Your task to perform on an android device: Do I have any events tomorrow? Image 0: 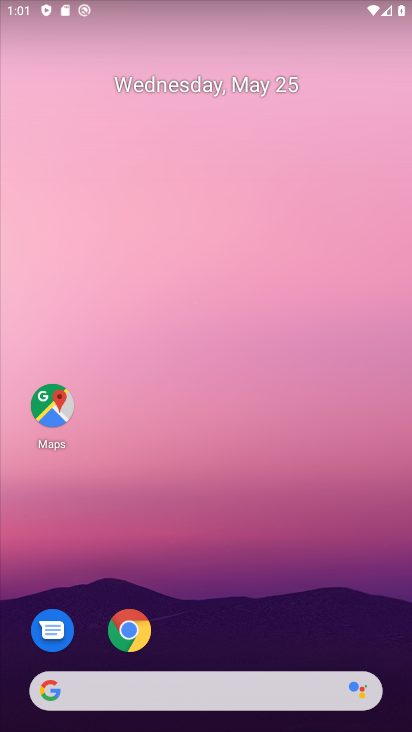
Step 0: drag from (268, 572) to (227, 4)
Your task to perform on an android device: Do I have any events tomorrow? Image 1: 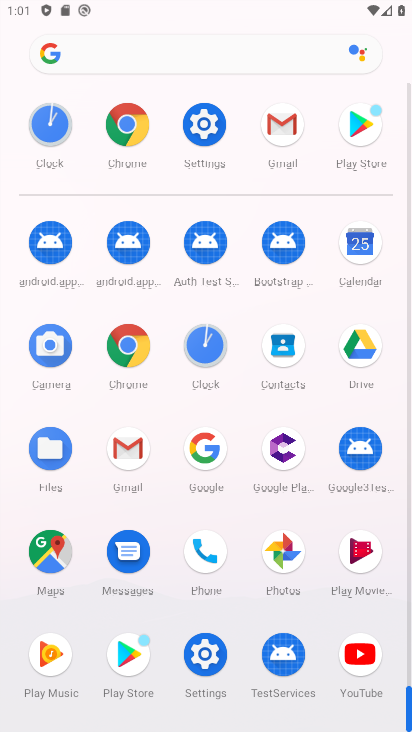
Step 1: click (358, 250)
Your task to perform on an android device: Do I have any events tomorrow? Image 2: 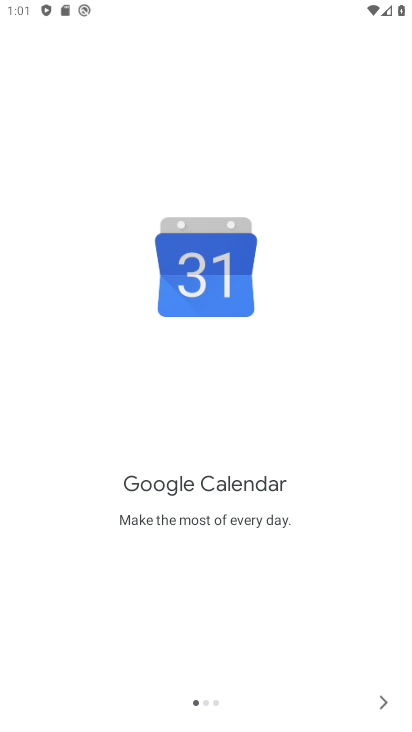
Step 2: click (375, 705)
Your task to perform on an android device: Do I have any events tomorrow? Image 3: 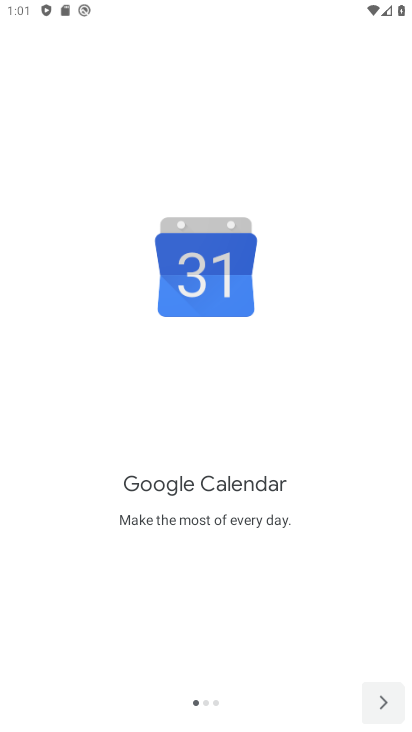
Step 3: click (378, 704)
Your task to perform on an android device: Do I have any events tomorrow? Image 4: 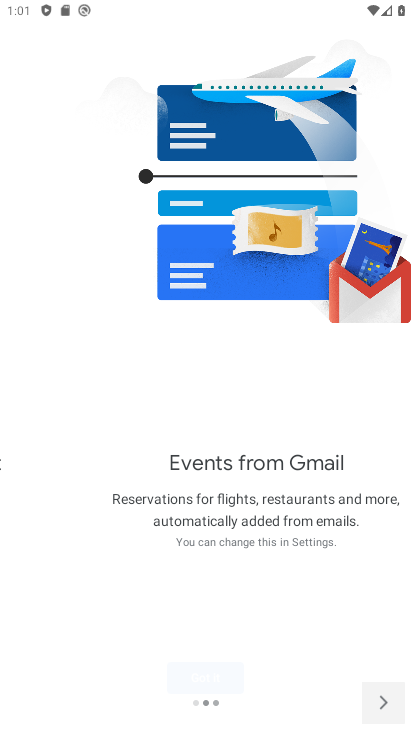
Step 4: click (384, 701)
Your task to perform on an android device: Do I have any events tomorrow? Image 5: 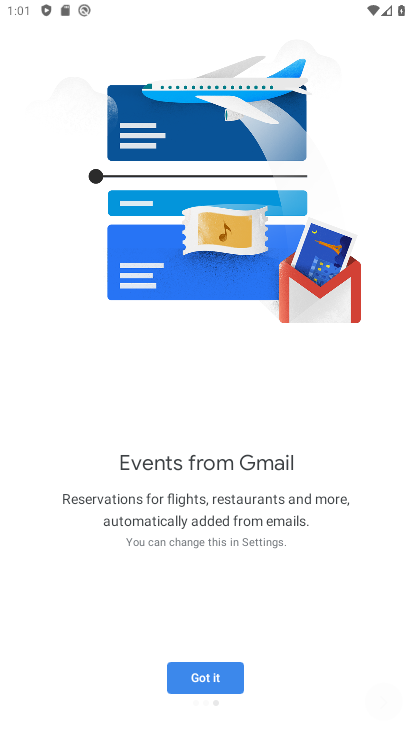
Step 5: click (384, 700)
Your task to perform on an android device: Do I have any events tomorrow? Image 6: 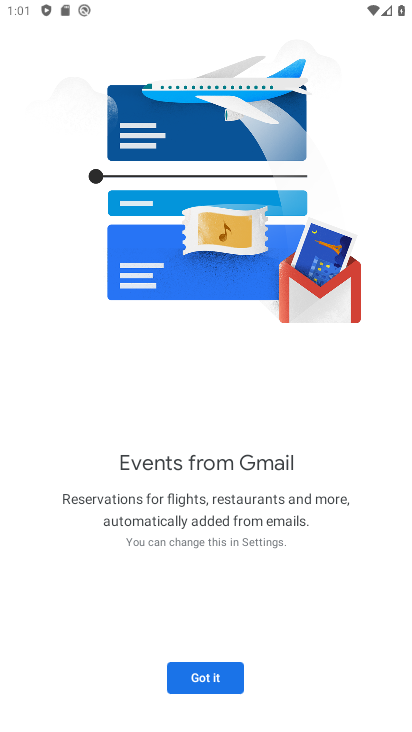
Step 6: click (384, 700)
Your task to perform on an android device: Do I have any events tomorrow? Image 7: 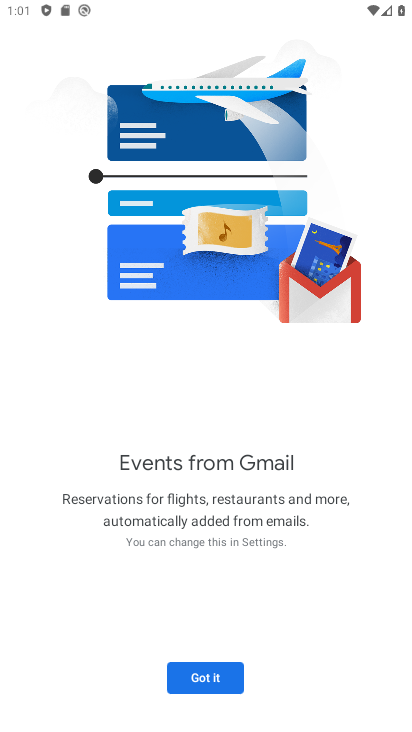
Step 7: click (386, 697)
Your task to perform on an android device: Do I have any events tomorrow? Image 8: 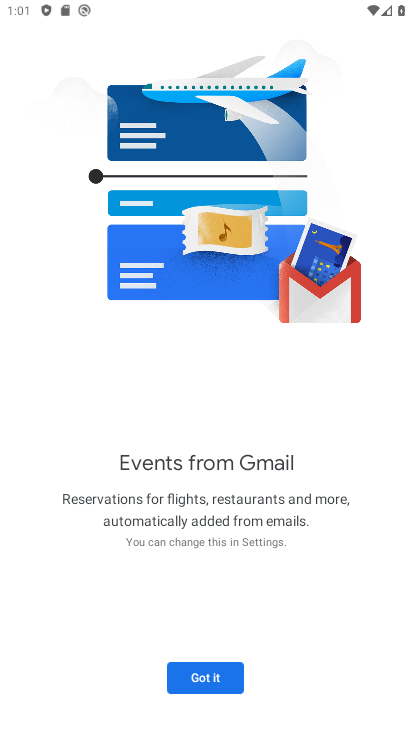
Step 8: click (213, 663)
Your task to perform on an android device: Do I have any events tomorrow? Image 9: 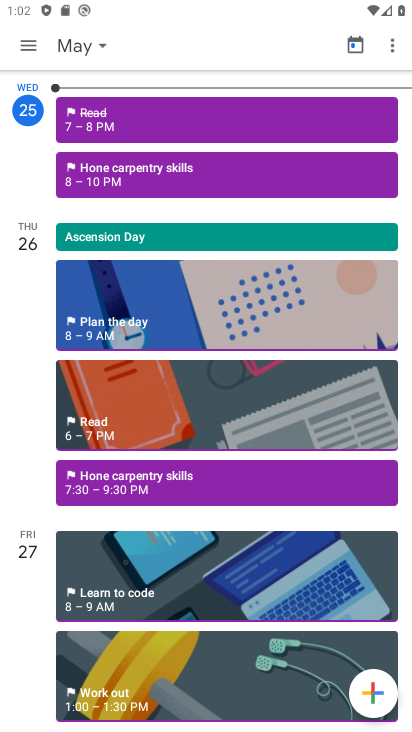
Step 9: click (78, 235)
Your task to perform on an android device: Do I have any events tomorrow? Image 10: 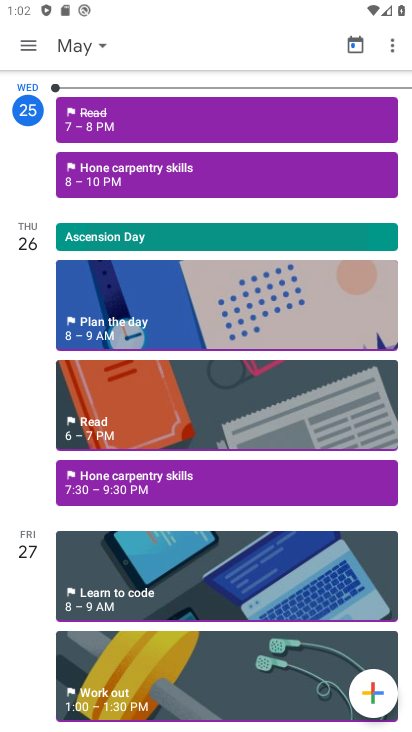
Step 10: click (84, 231)
Your task to perform on an android device: Do I have any events tomorrow? Image 11: 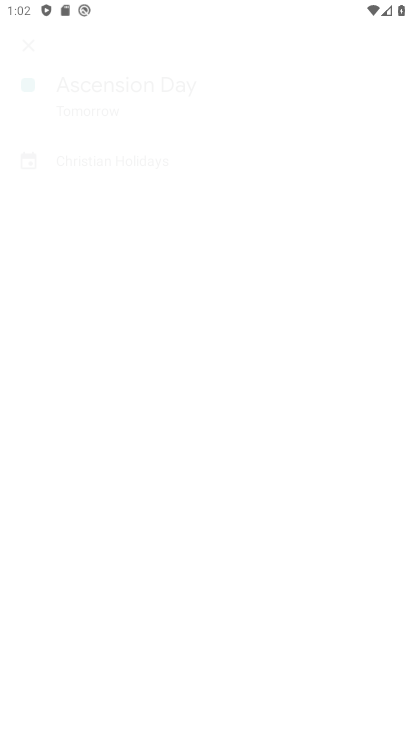
Step 11: click (92, 246)
Your task to perform on an android device: Do I have any events tomorrow? Image 12: 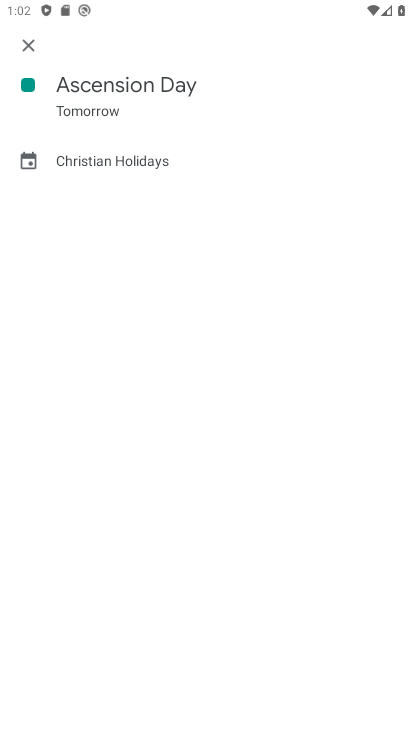
Step 12: task complete